Your task to perform on an android device: Go to battery settings Image 0: 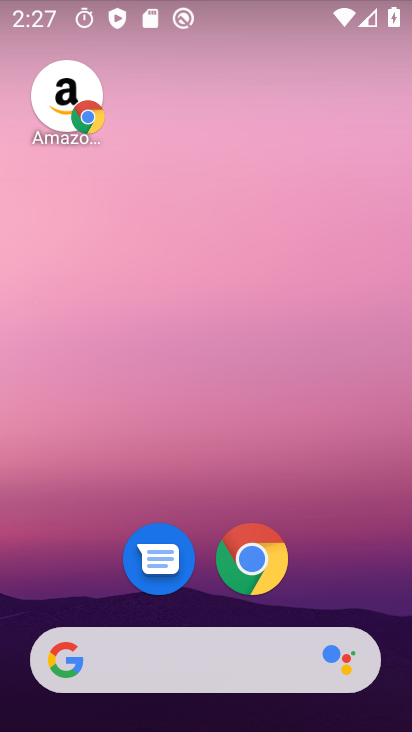
Step 0: drag from (313, 564) to (0, 552)
Your task to perform on an android device: Go to battery settings Image 1: 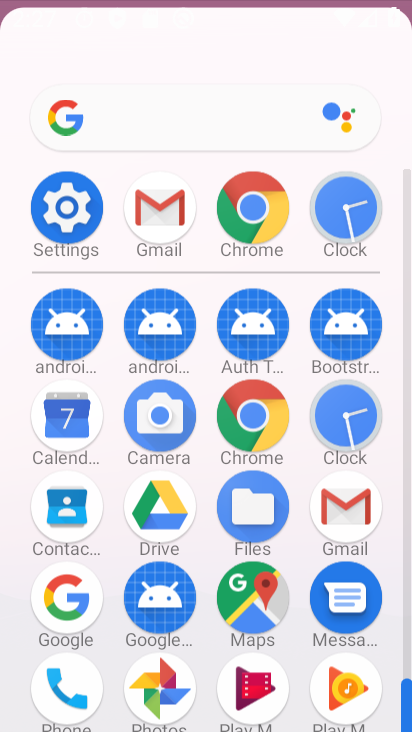
Step 1: drag from (14, 584) to (33, 237)
Your task to perform on an android device: Go to battery settings Image 2: 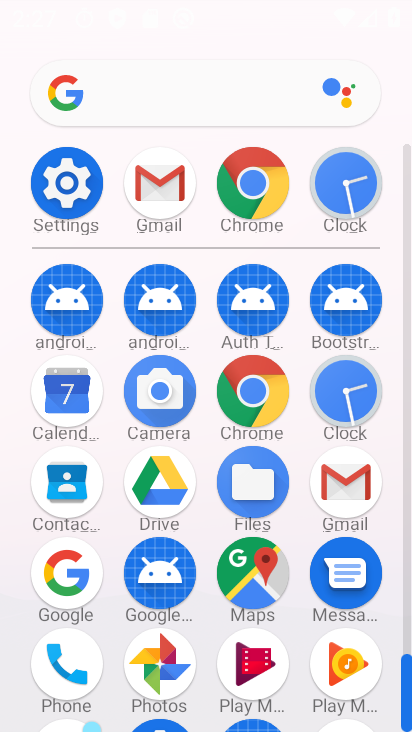
Step 2: click (63, 178)
Your task to perform on an android device: Go to battery settings Image 3: 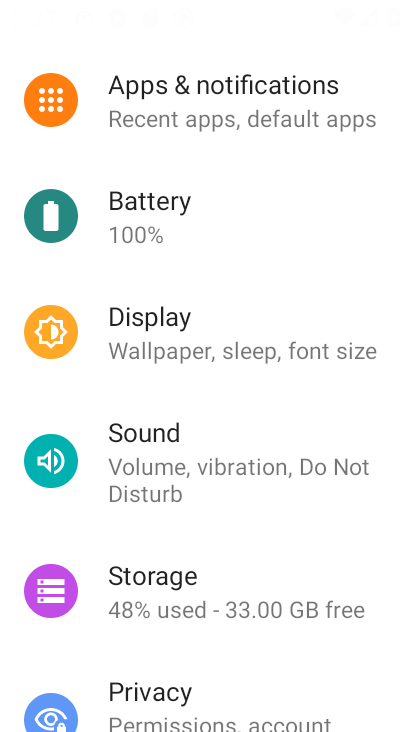
Step 3: drag from (252, 632) to (251, 222)
Your task to perform on an android device: Go to battery settings Image 4: 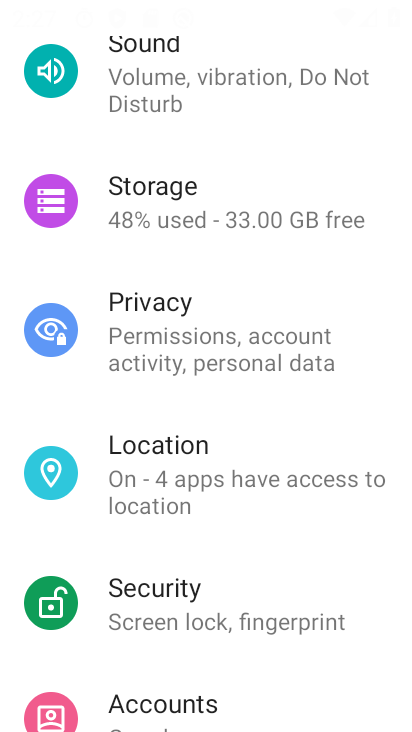
Step 4: drag from (251, 604) to (308, 143)
Your task to perform on an android device: Go to battery settings Image 5: 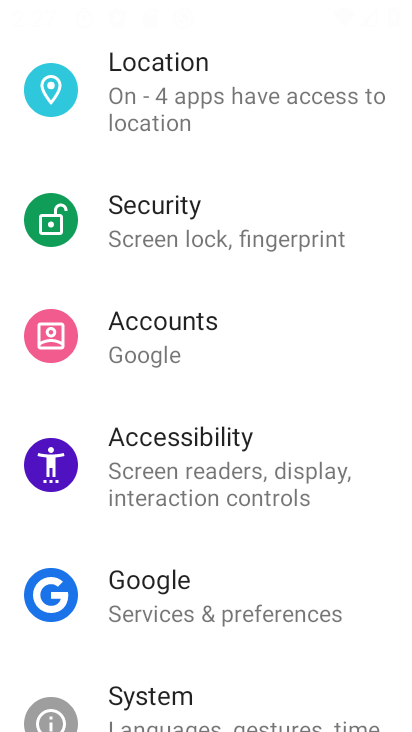
Step 5: drag from (234, 544) to (250, 155)
Your task to perform on an android device: Go to battery settings Image 6: 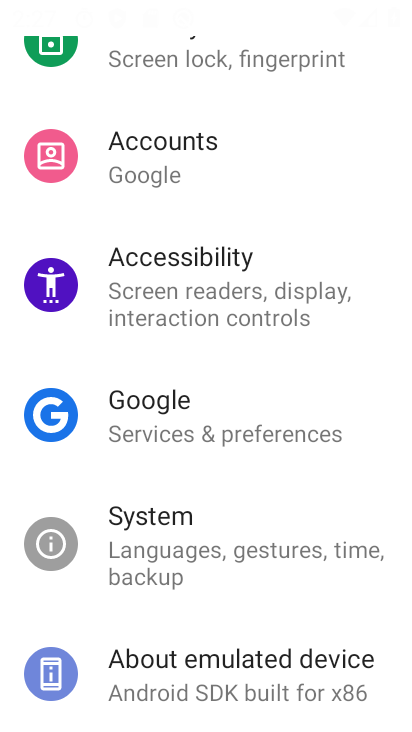
Step 6: drag from (245, 253) to (243, 628)
Your task to perform on an android device: Go to battery settings Image 7: 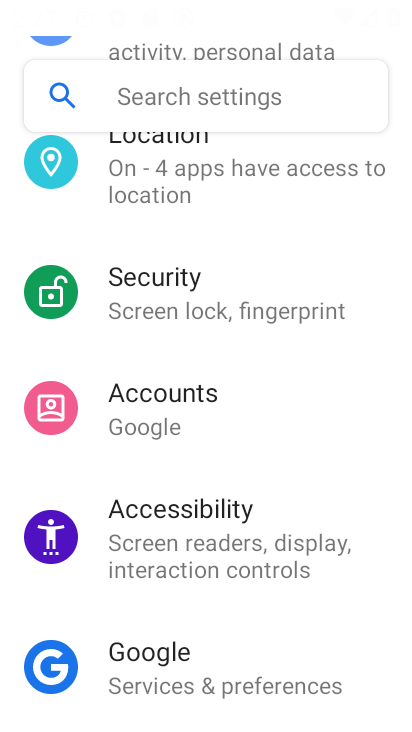
Step 7: drag from (225, 175) to (231, 626)
Your task to perform on an android device: Go to battery settings Image 8: 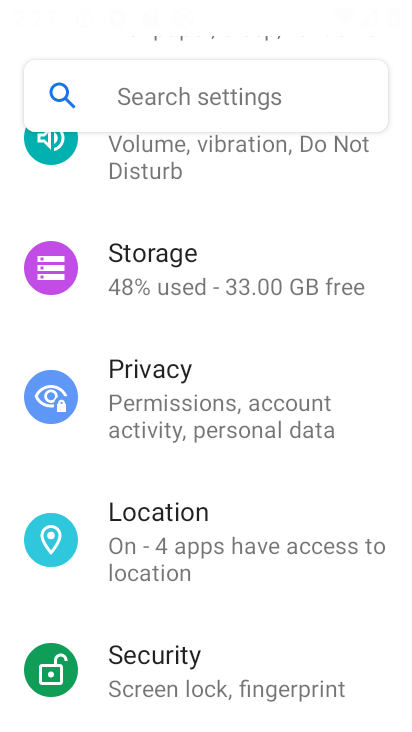
Step 8: drag from (226, 222) to (233, 617)
Your task to perform on an android device: Go to battery settings Image 9: 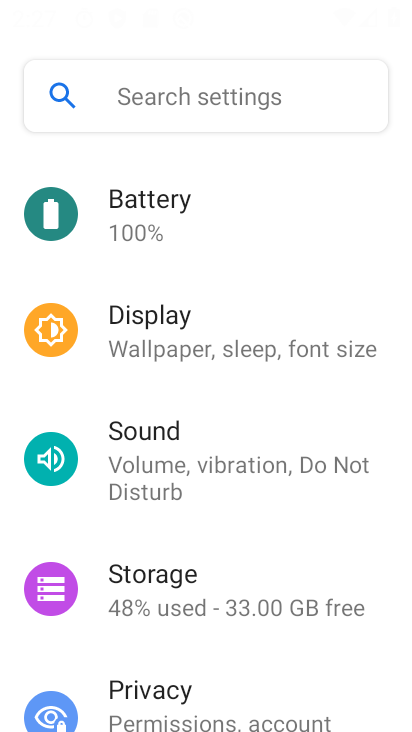
Step 9: click (197, 215)
Your task to perform on an android device: Go to battery settings Image 10: 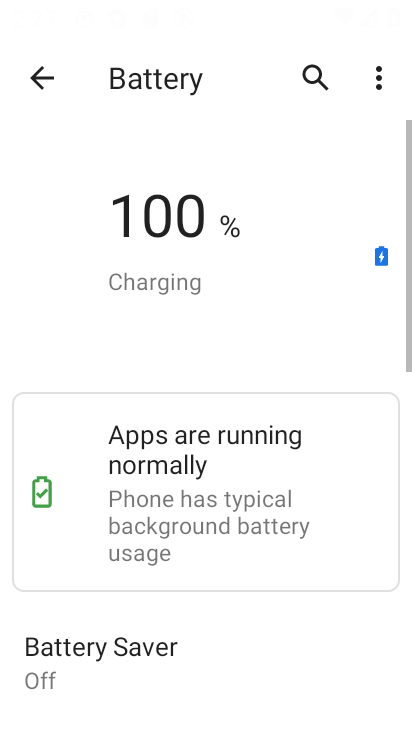
Step 10: task complete